Your task to perform on an android device: Open Google Maps Image 0: 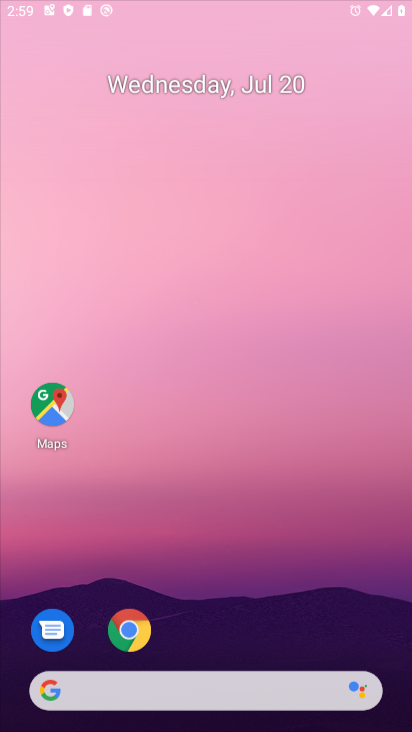
Step 0: press home button
Your task to perform on an android device: Open Google Maps Image 1: 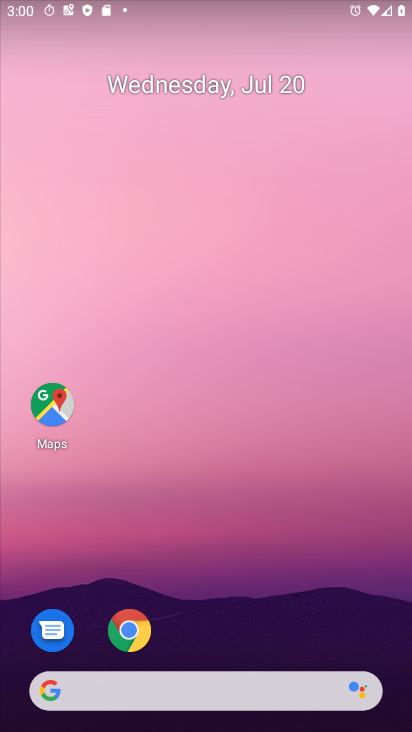
Step 1: click (53, 422)
Your task to perform on an android device: Open Google Maps Image 2: 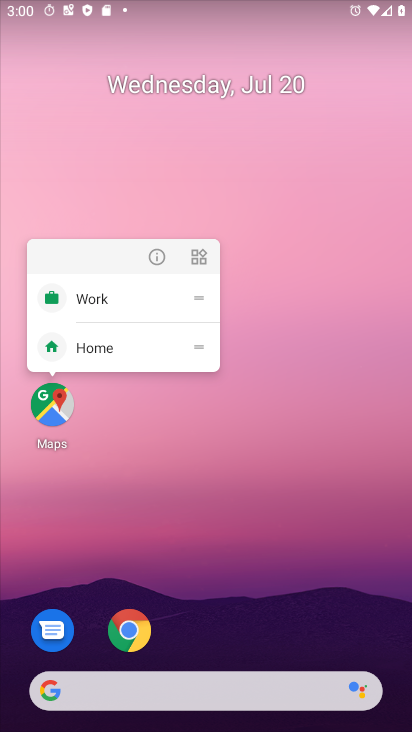
Step 2: click (51, 389)
Your task to perform on an android device: Open Google Maps Image 3: 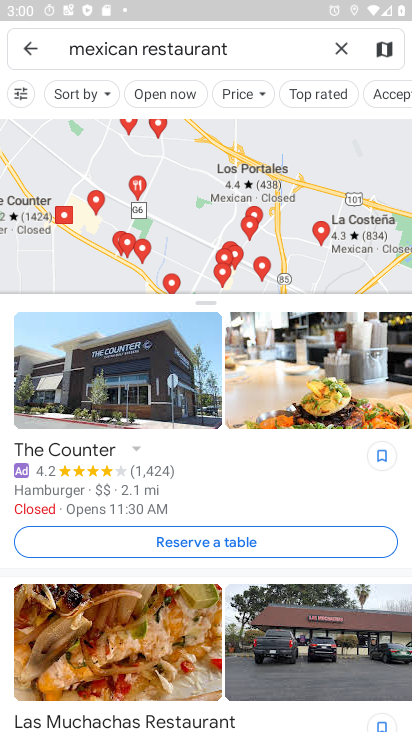
Step 3: click (26, 49)
Your task to perform on an android device: Open Google Maps Image 4: 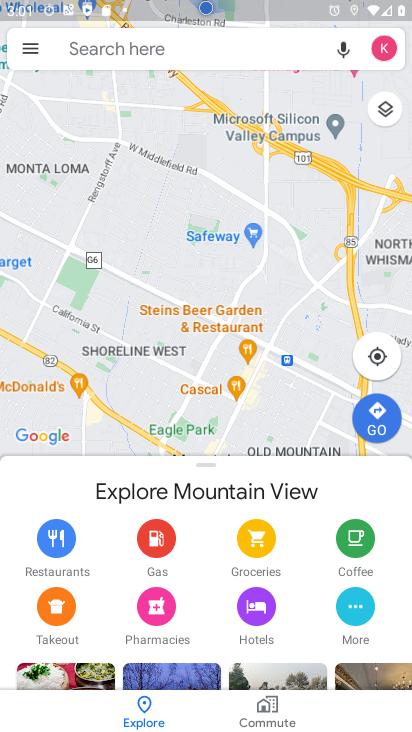
Step 4: task complete